Your task to perform on an android device: What's the weather? Image 0: 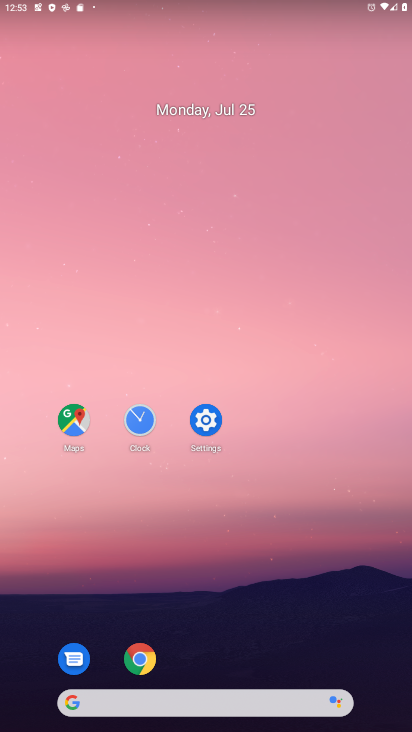
Step 0: drag from (3, 302) to (402, 265)
Your task to perform on an android device: What's the weather? Image 1: 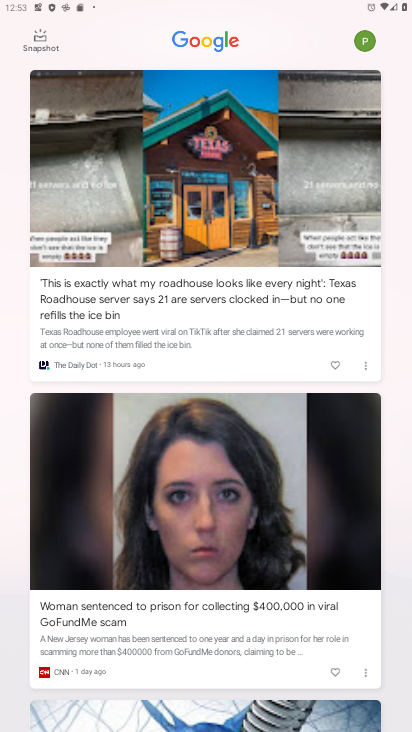
Step 1: task complete